Your task to perform on an android device: Open Wikipedia Image 0: 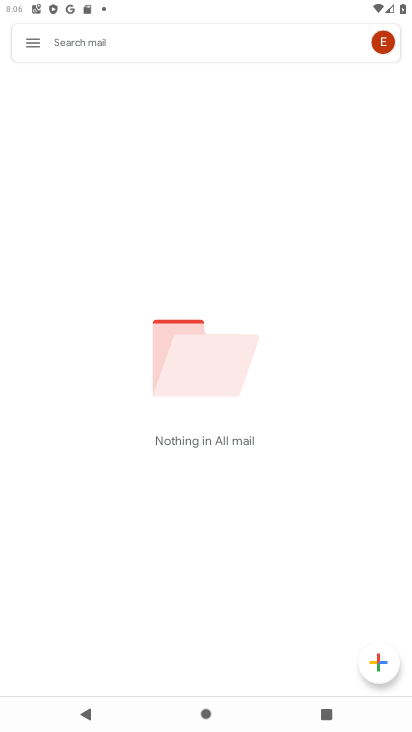
Step 0: press home button
Your task to perform on an android device: Open Wikipedia Image 1: 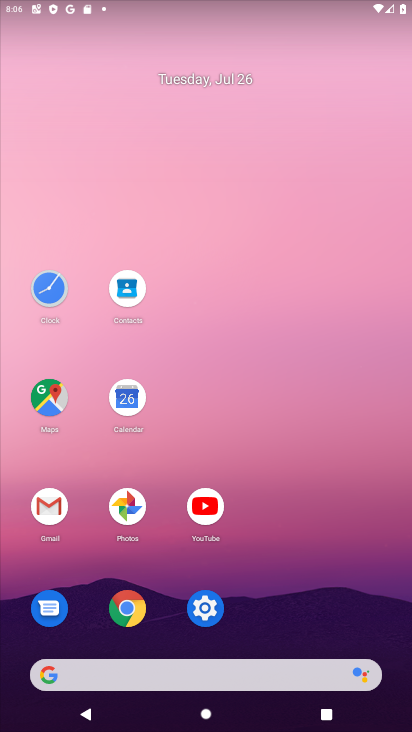
Step 1: click (128, 606)
Your task to perform on an android device: Open Wikipedia Image 2: 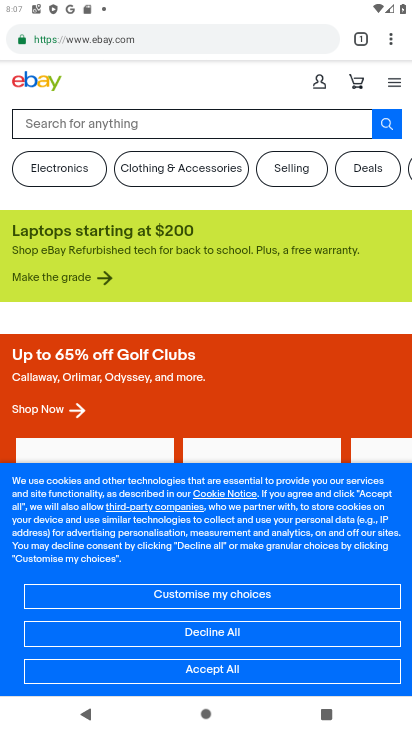
Step 2: click (389, 36)
Your task to perform on an android device: Open Wikipedia Image 3: 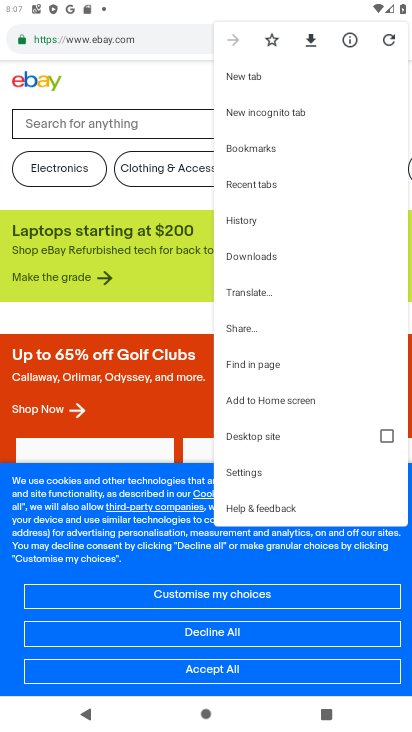
Step 3: click (251, 75)
Your task to perform on an android device: Open Wikipedia Image 4: 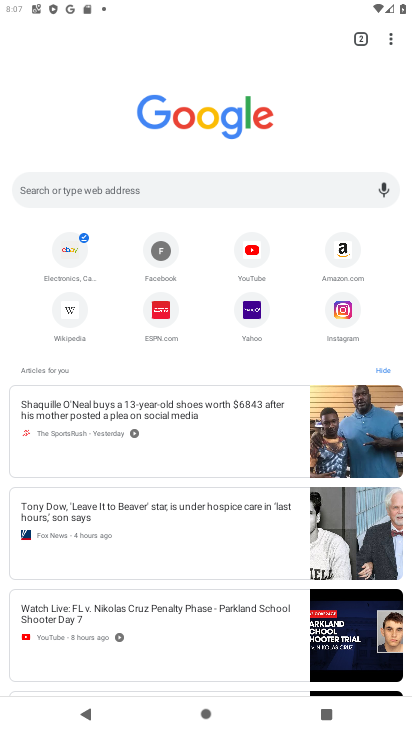
Step 4: click (71, 310)
Your task to perform on an android device: Open Wikipedia Image 5: 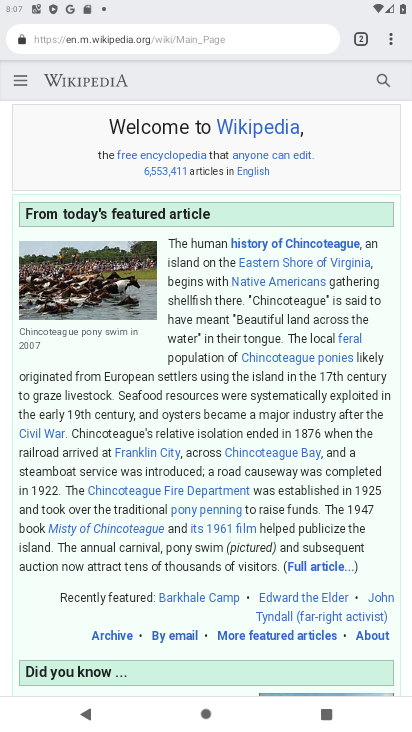
Step 5: task complete